Your task to perform on an android device: Go to Amazon Image 0: 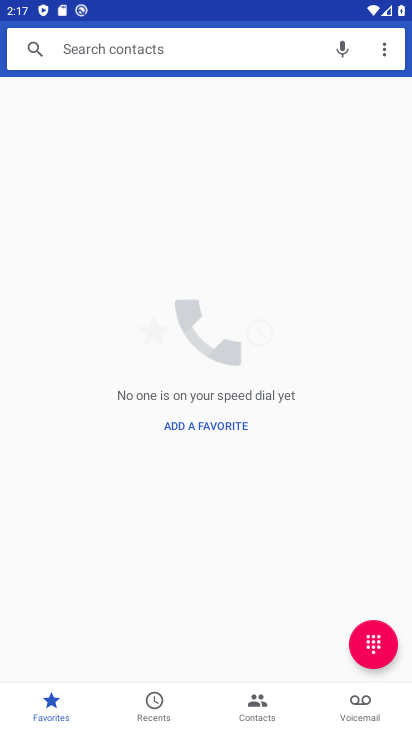
Step 0: press home button
Your task to perform on an android device: Go to Amazon Image 1: 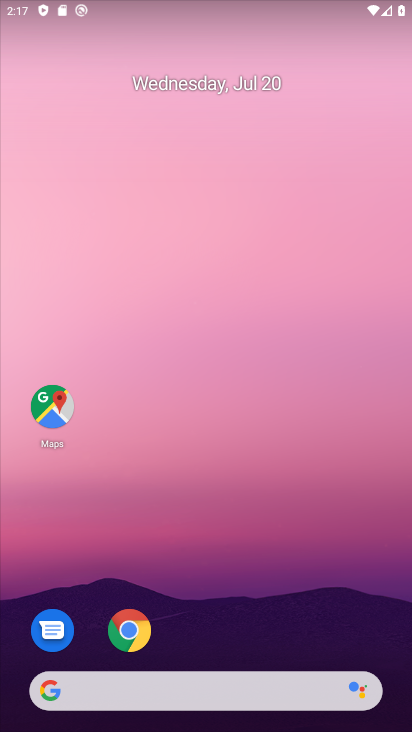
Step 1: click (114, 634)
Your task to perform on an android device: Go to Amazon Image 2: 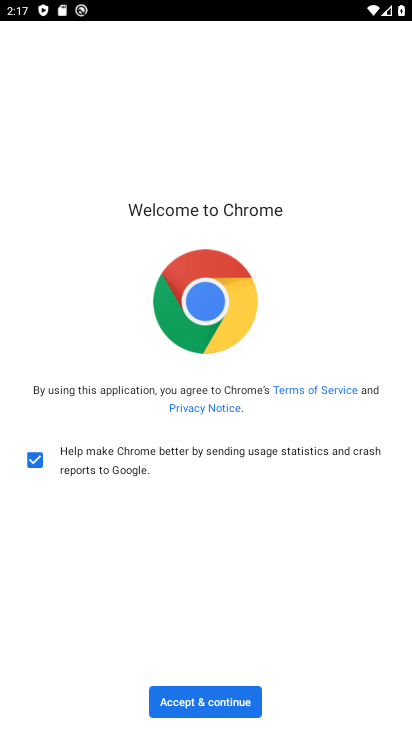
Step 2: click (217, 704)
Your task to perform on an android device: Go to Amazon Image 3: 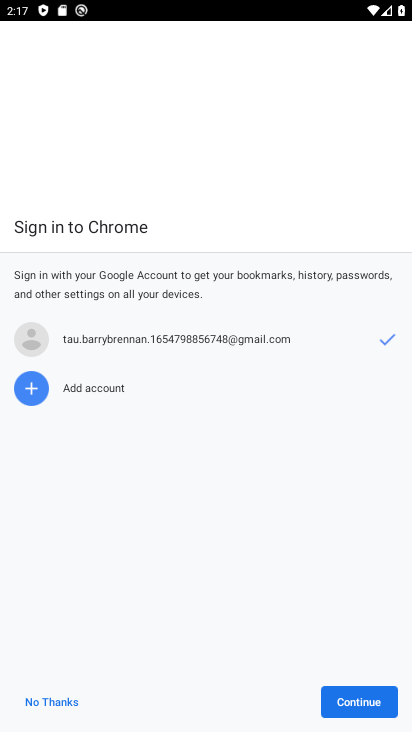
Step 3: click (353, 701)
Your task to perform on an android device: Go to Amazon Image 4: 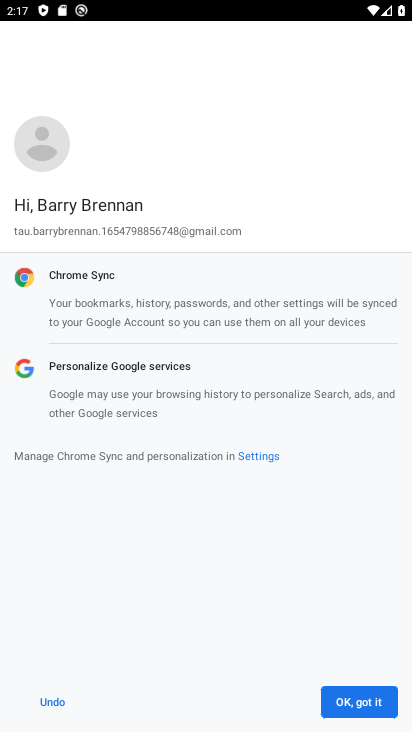
Step 4: click (353, 701)
Your task to perform on an android device: Go to Amazon Image 5: 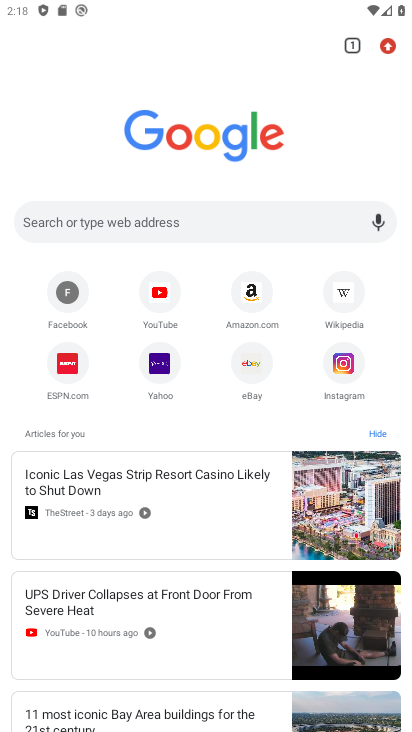
Step 5: click (257, 299)
Your task to perform on an android device: Go to Amazon Image 6: 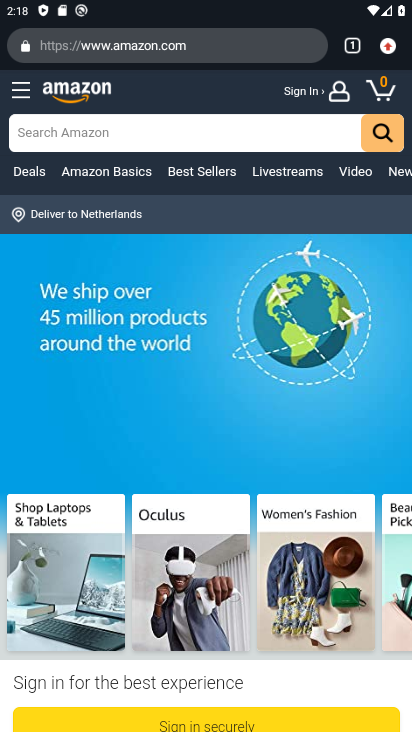
Step 6: task complete